Your task to perform on an android device: toggle show notifications on the lock screen Image 0: 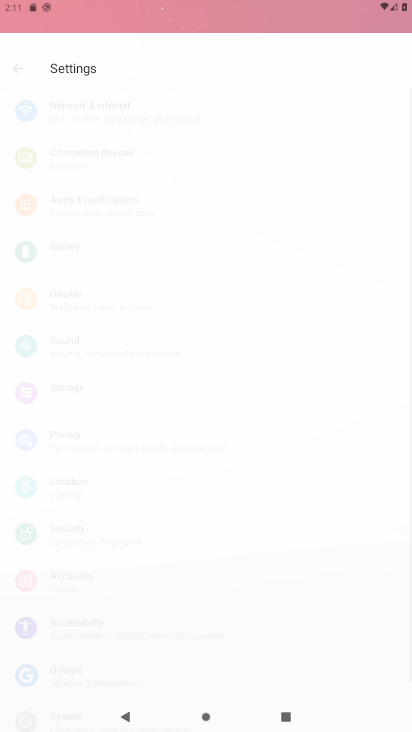
Step 0: click (195, 140)
Your task to perform on an android device: toggle show notifications on the lock screen Image 1: 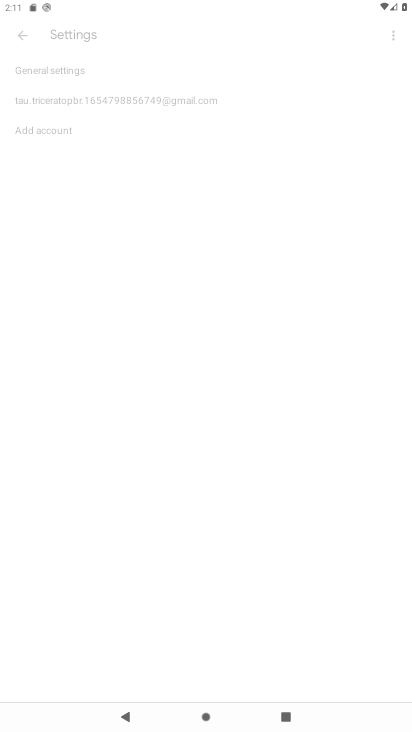
Step 1: press home button
Your task to perform on an android device: toggle show notifications on the lock screen Image 2: 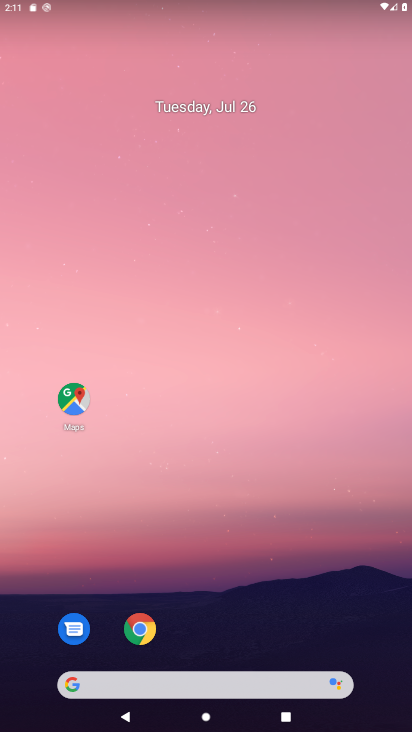
Step 2: drag from (225, 654) to (259, 23)
Your task to perform on an android device: toggle show notifications on the lock screen Image 3: 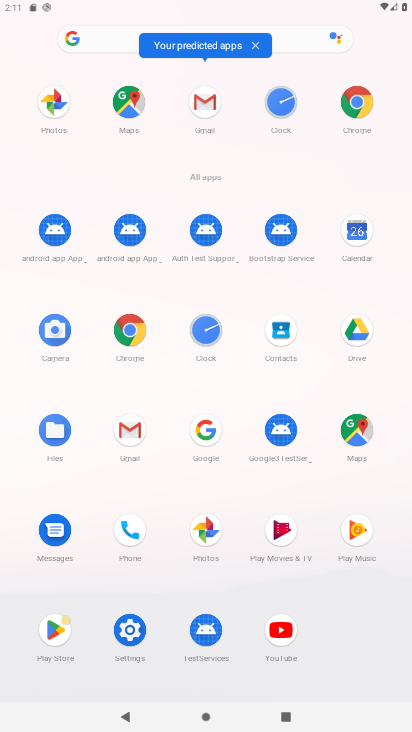
Step 3: click (141, 629)
Your task to perform on an android device: toggle show notifications on the lock screen Image 4: 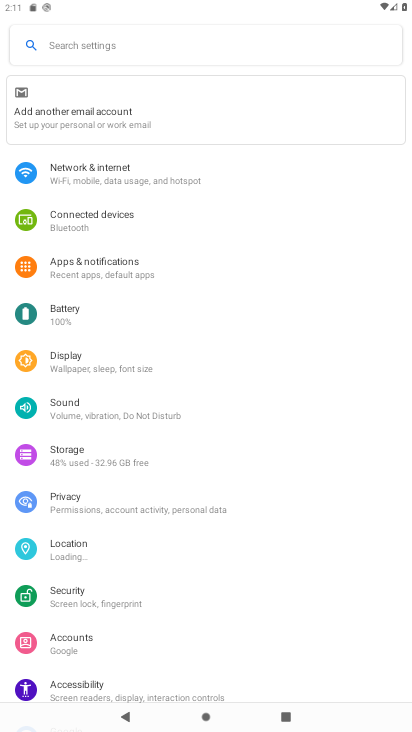
Step 4: click (105, 284)
Your task to perform on an android device: toggle show notifications on the lock screen Image 5: 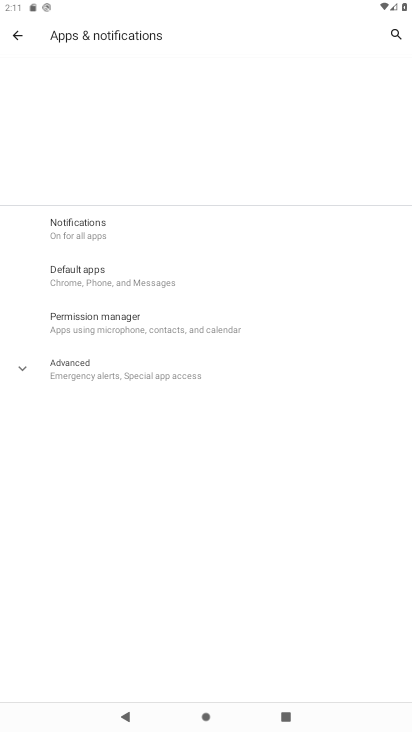
Step 5: click (65, 368)
Your task to perform on an android device: toggle show notifications on the lock screen Image 6: 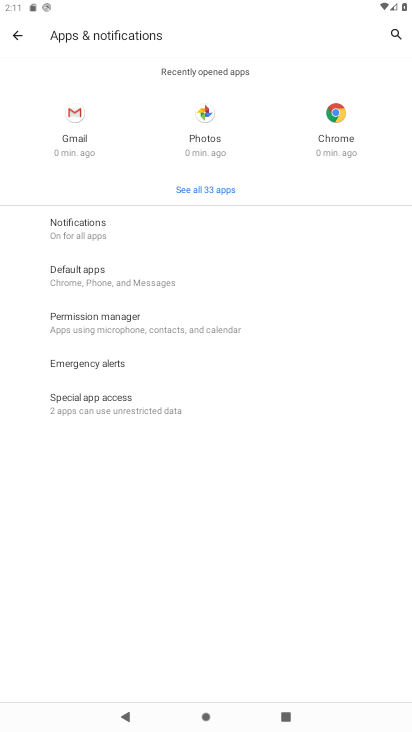
Step 6: click (86, 247)
Your task to perform on an android device: toggle show notifications on the lock screen Image 7: 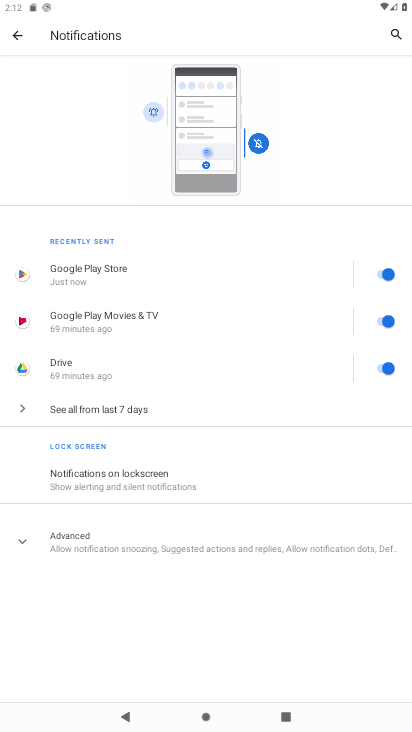
Step 7: click (147, 491)
Your task to perform on an android device: toggle show notifications on the lock screen Image 8: 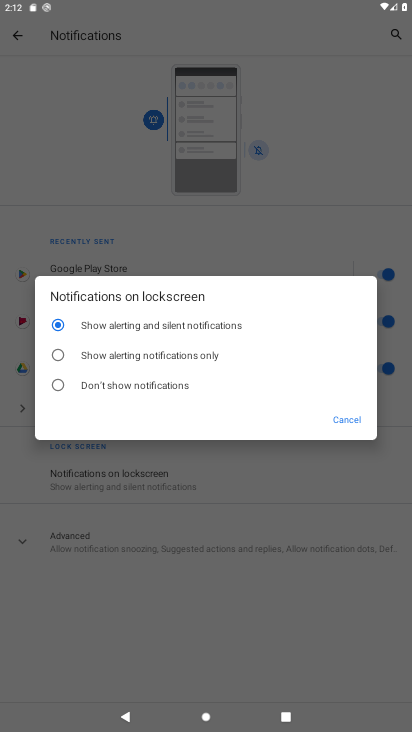
Step 8: click (112, 351)
Your task to perform on an android device: toggle show notifications on the lock screen Image 9: 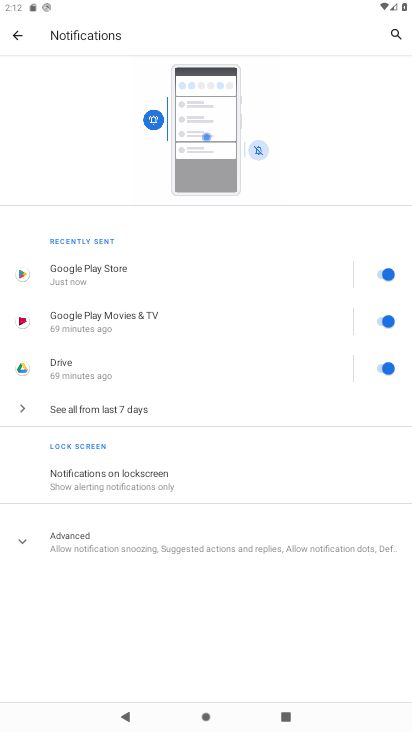
Step 9: task complete